Your task to perform on an android device: turn on priority inbox in the gmail app Image 0: 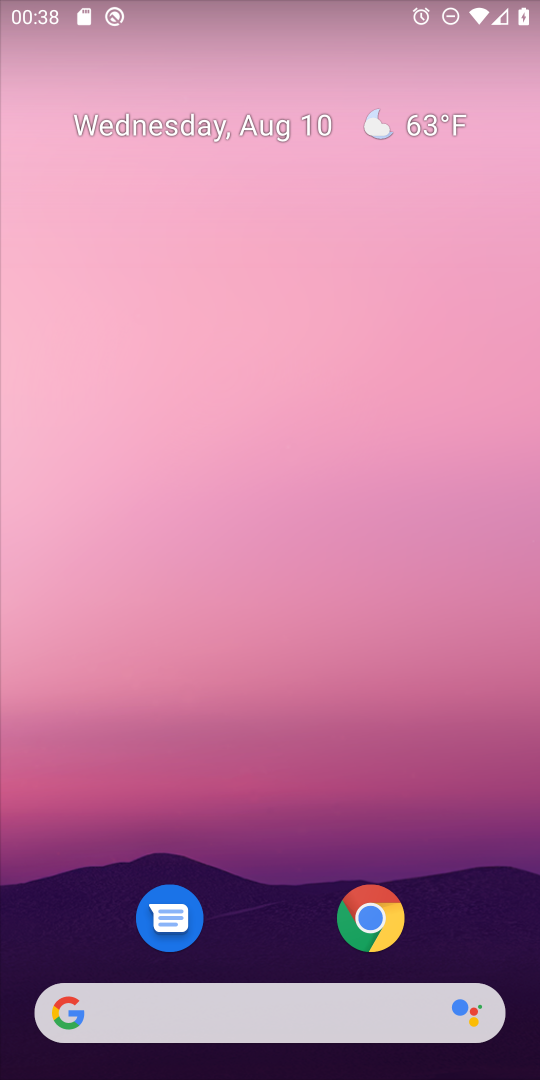
Step 0: drag from (260, 634) to (300, 136)
Your task to perform on an android device: turn on priority inbox in the gmail app Image 1: 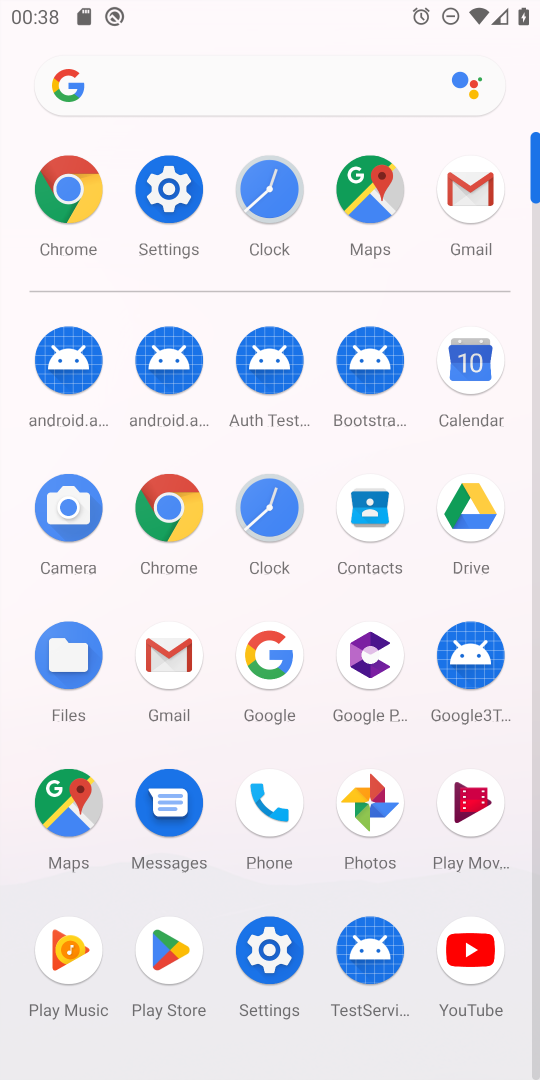
Step 1: click (465, 192)
Your task to perform on an android device: turn on priority inbox in the gmail app Image 2: 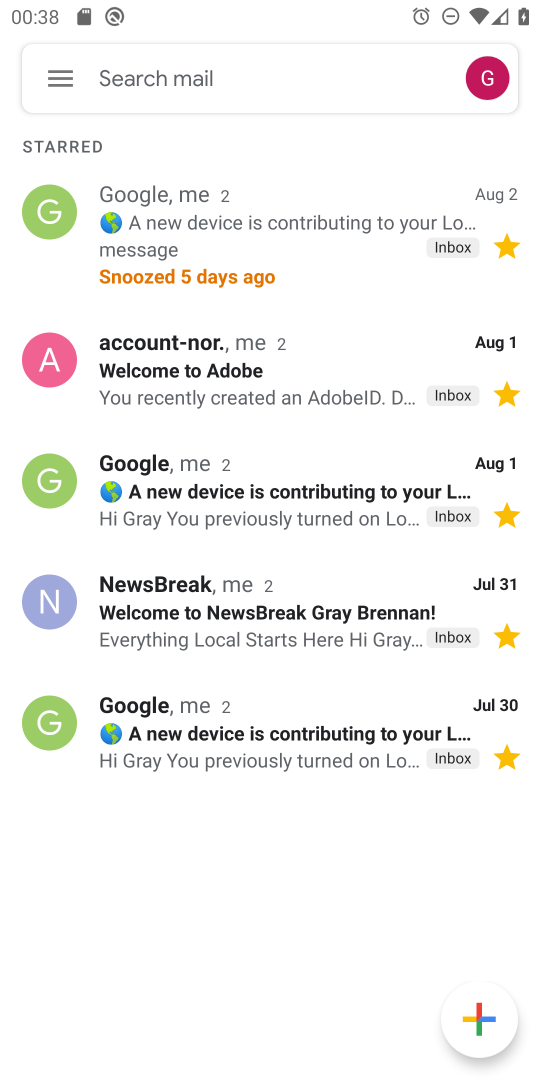
Step 2: click (62, 71)
Your task to perform on an android device: turn on priority inbox in the gmail app Image 3: 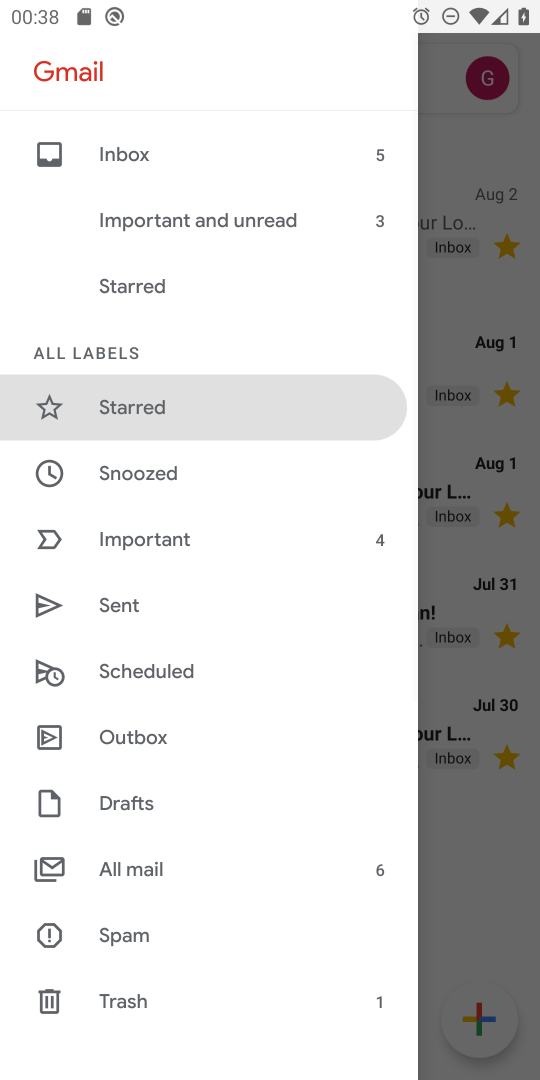
Step 3: drag from (193, 962) to (265, 257)
Your task to perform on an android device: turn on priority inbox in the gmail app Image 4: 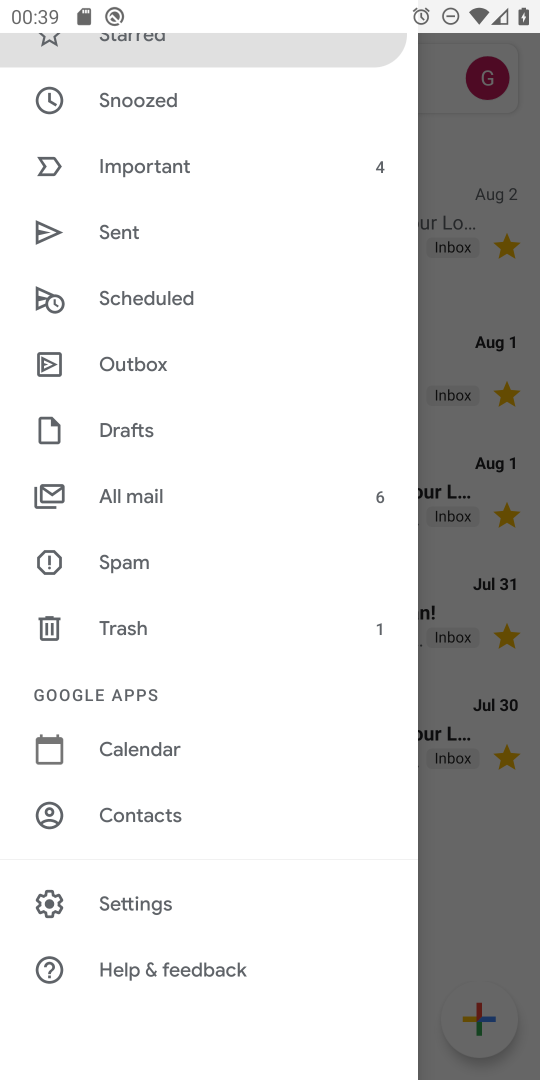
Step 4: click (146, 897)
Your task to perform on an android device: turn on priority inbox in the gmail app Image 5: 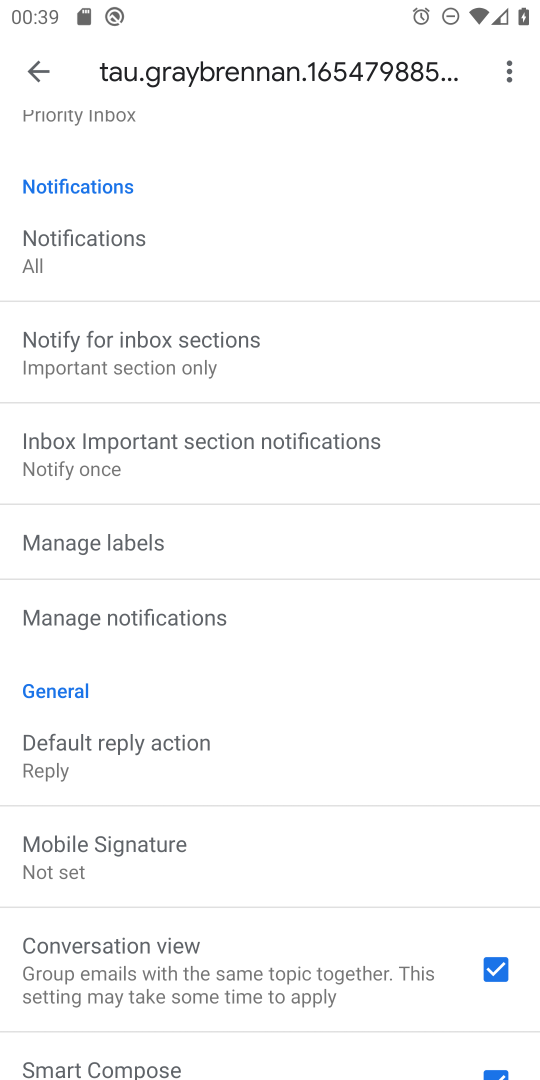
Step 5: drag from (171, 231) to (175, 658)
Your task to perform on an android device: turn on priority inbox in the gmail app Image 6: 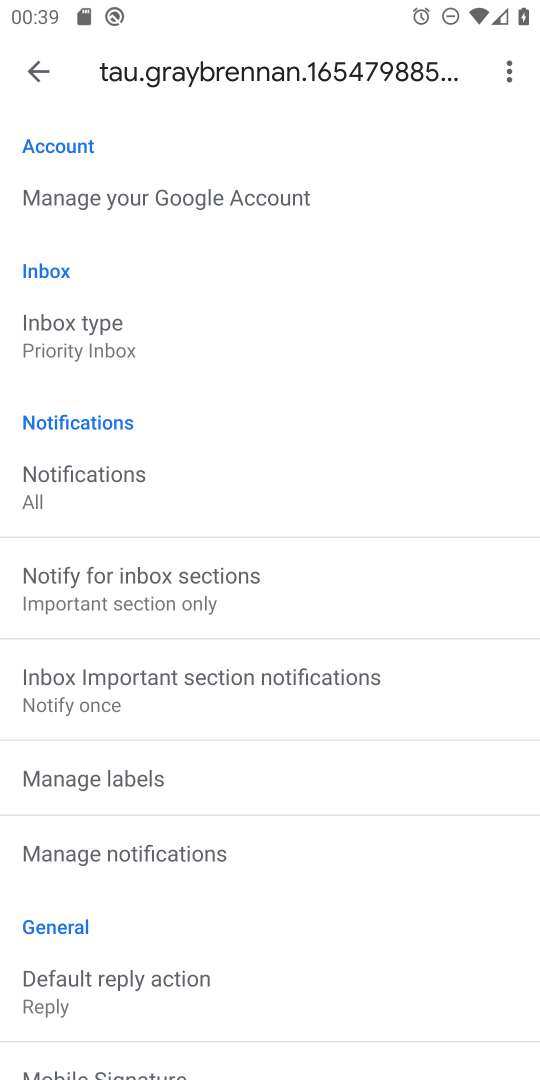
Step 6: click (98, 331)
Your task to perform on an android device: turn on priority inbox in the gmail app Image 7: 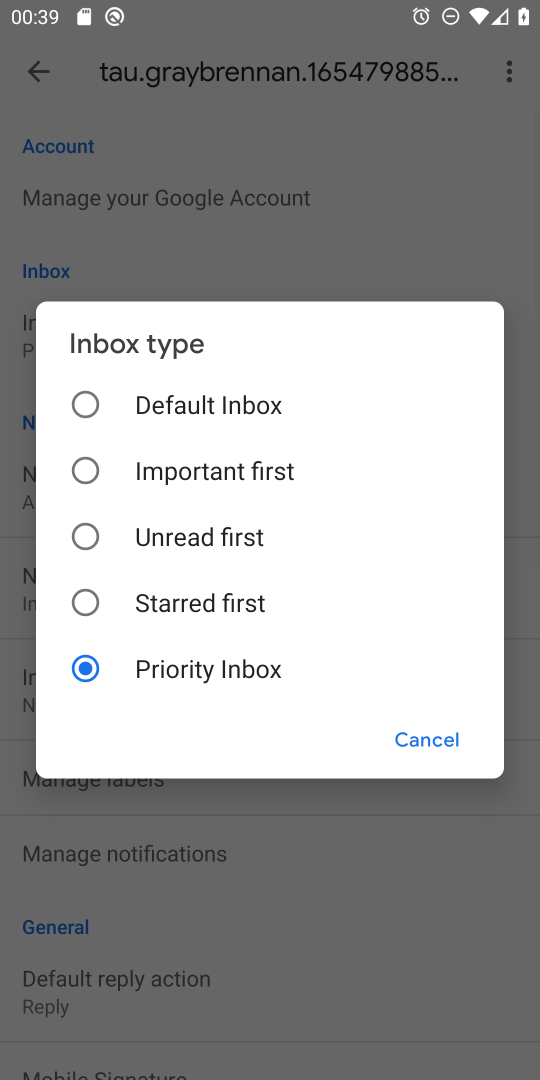
Step 7: task complete